Your task to perform on an android device: Go to battery settings Image 0: 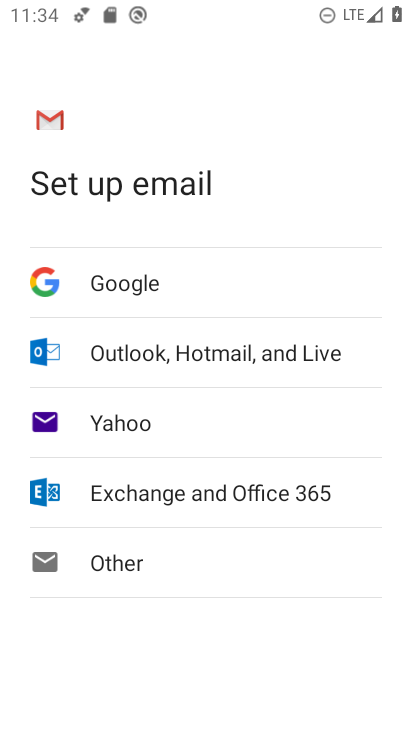
Step 0: drag from (214, 11) to (196, 518)
Your task to perform on an android device: Go to battery settings Image 1: 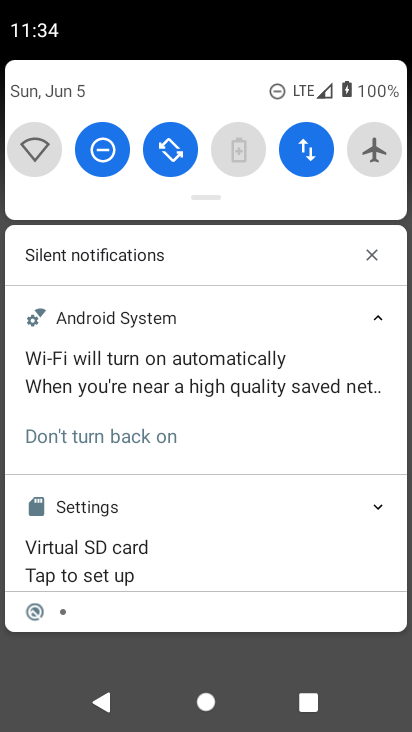
Step 1: click (236, 153)
Your task to perform on an android device: Go to battery settings Image 2: 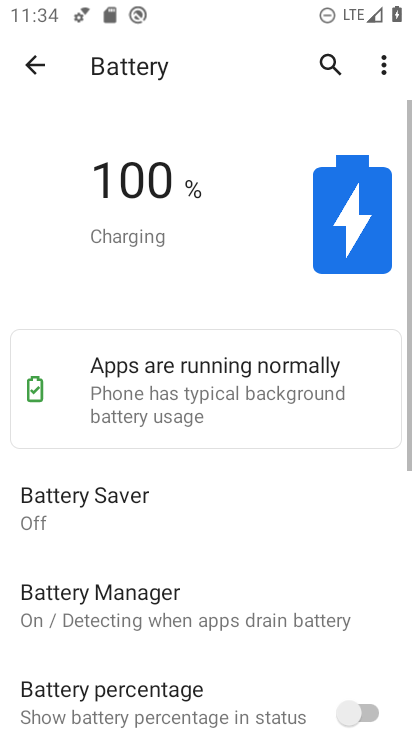
Step 2: task complete